Your task to perform on an android device: Open calendar and show me the third week of next month Image 0: 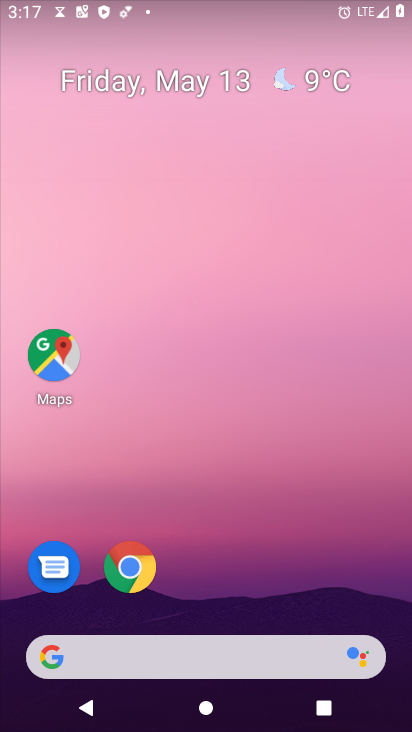
Step 0: drag from (288, 424) to (296, 41)
Your task to perform on an android device: Open calendar and show me the third week of next month Image 1: 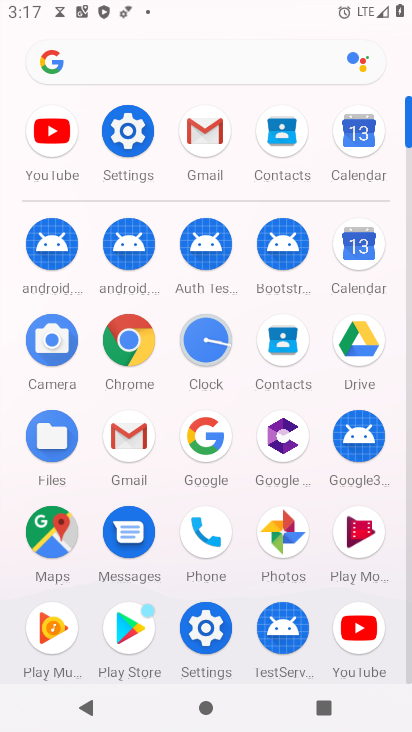
Step 1: click (357, 153)
Your task to perform on an android device: Open calendar and show me the third week of next month Image 2: 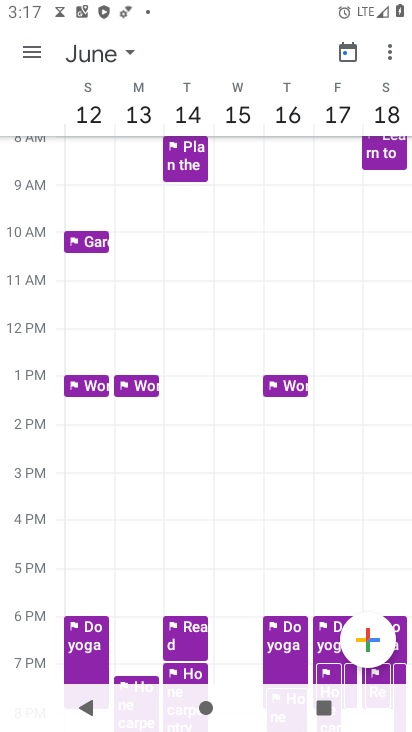
Step 2: task complete